Your task to perform on an android device: Open Chrome and go to settings Image 0: 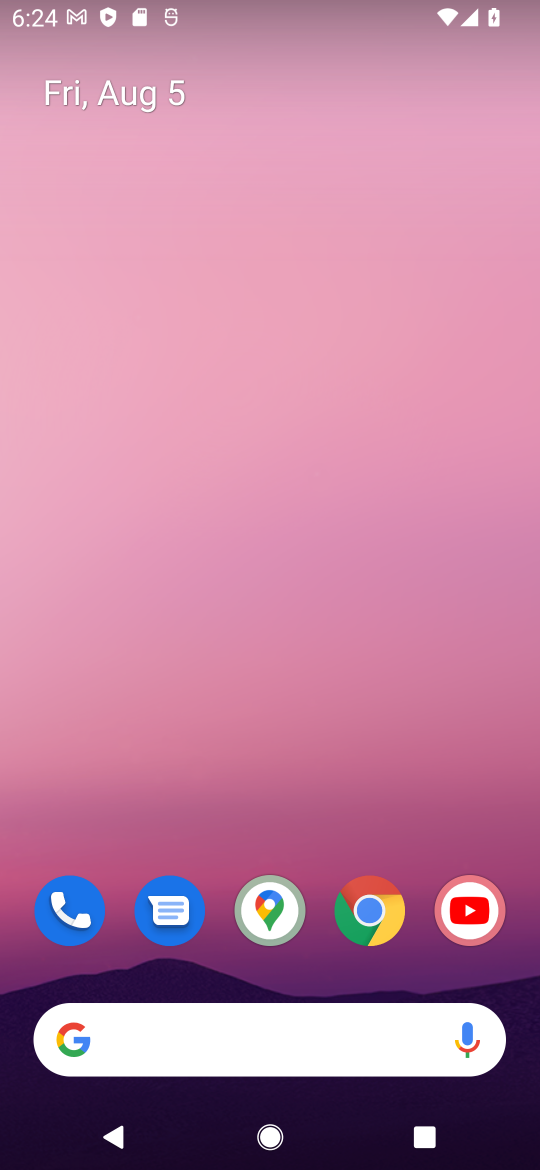
Step 0: drag from (307, 1053) to (324, 17)
Your task to perform on an android device: Open Chrome and go to settings Image 1: 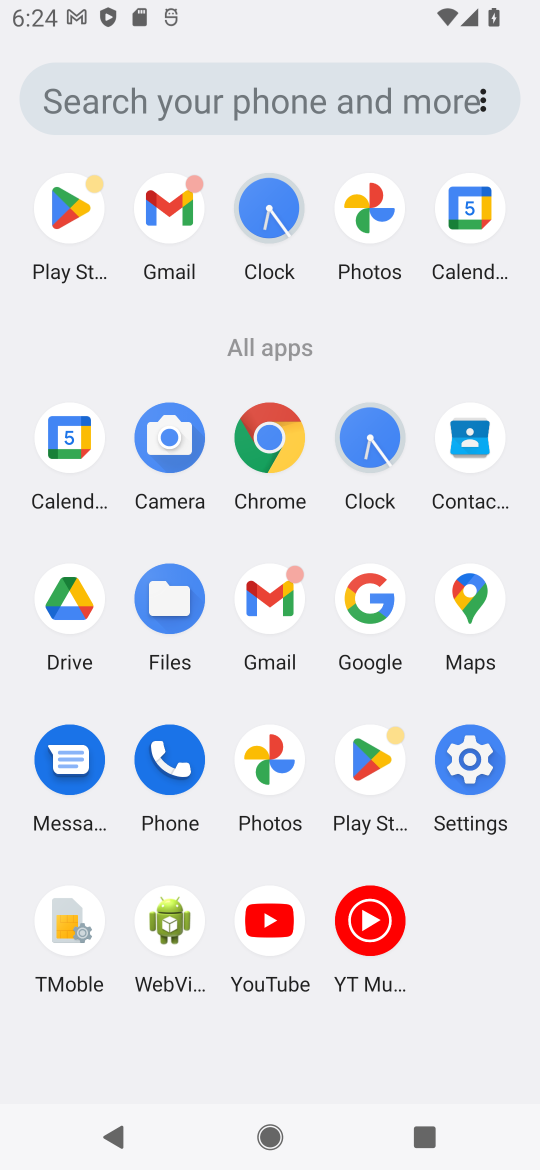
Step 1: click (268, 457)
Your task to perform on an android device: Open Chrome and go to settings Image 2: 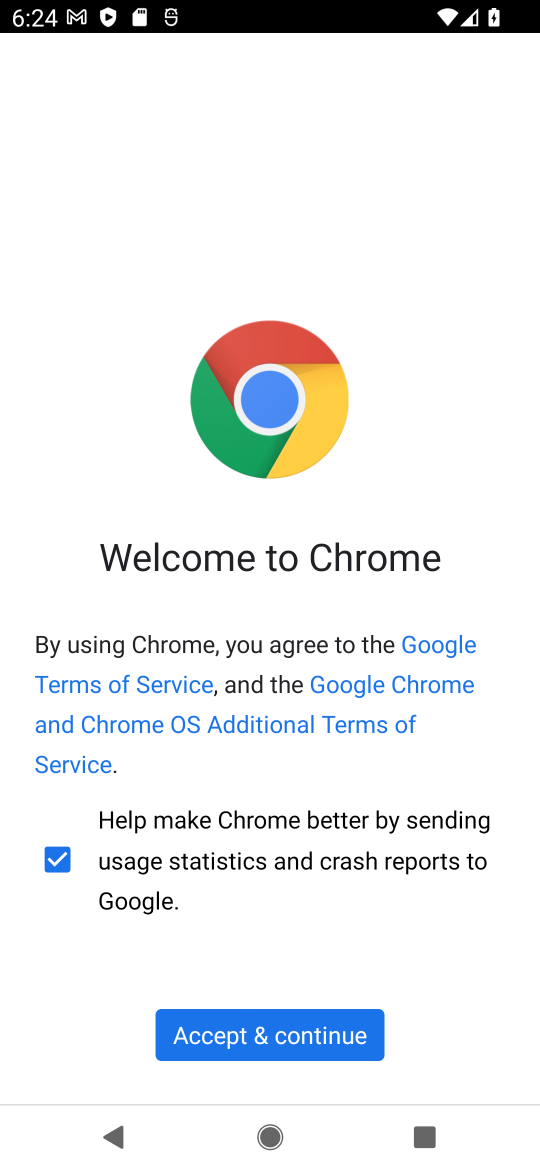
Step 2: click (247, 1017)
Your task to perform on an android device: Open Chrome and go to settings Image 3: 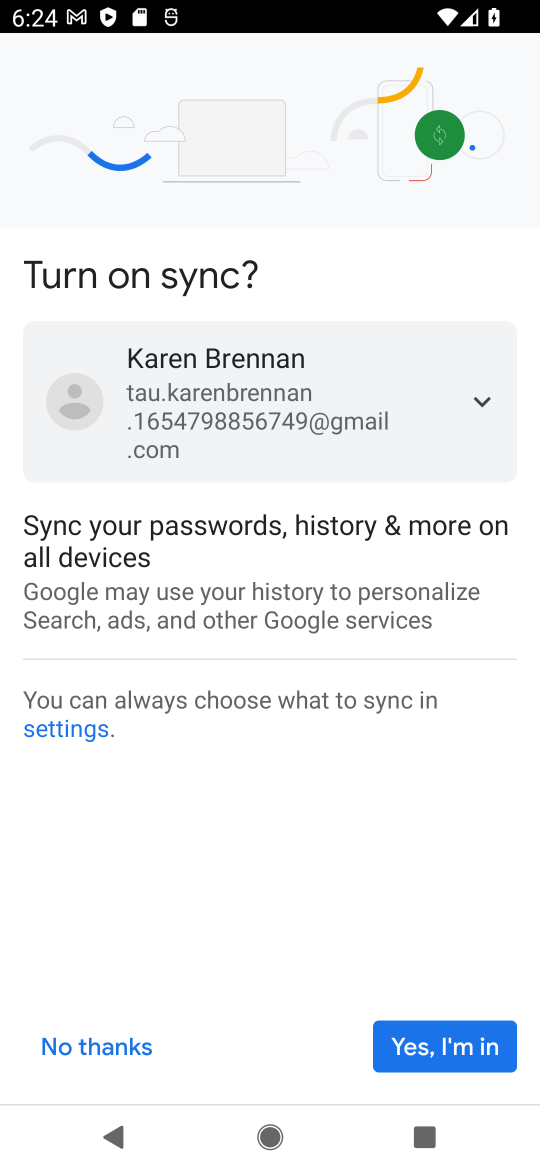
Step 3: click (62, 1044)
Your task to perform on an android device: Open Chrome and go to settings Image 4: 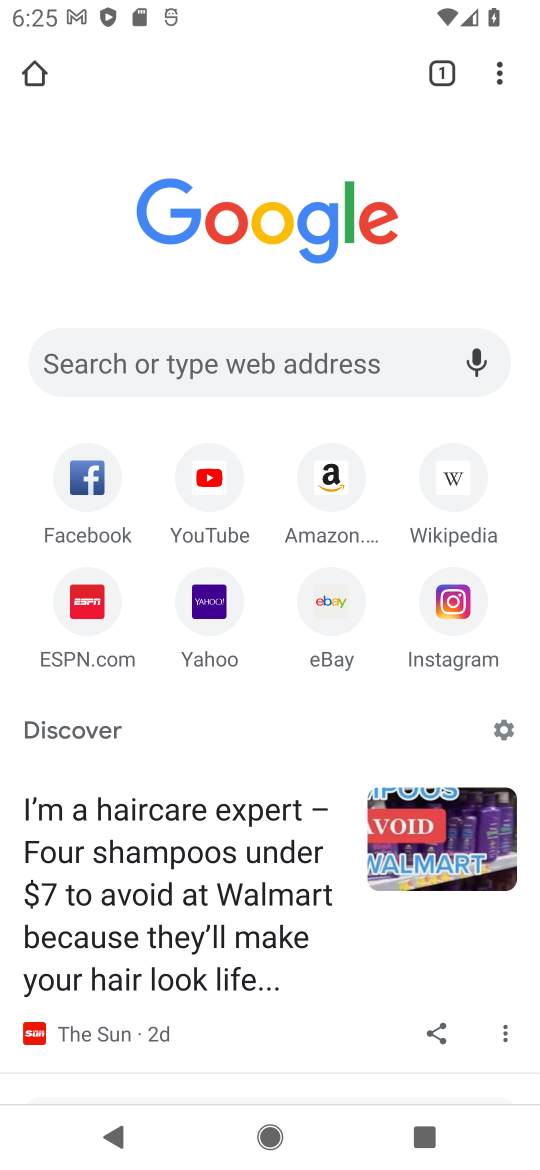
Step 4: click (496, 69)
Your task to perform on an android device: Open Chrome and go to settings Image 5: 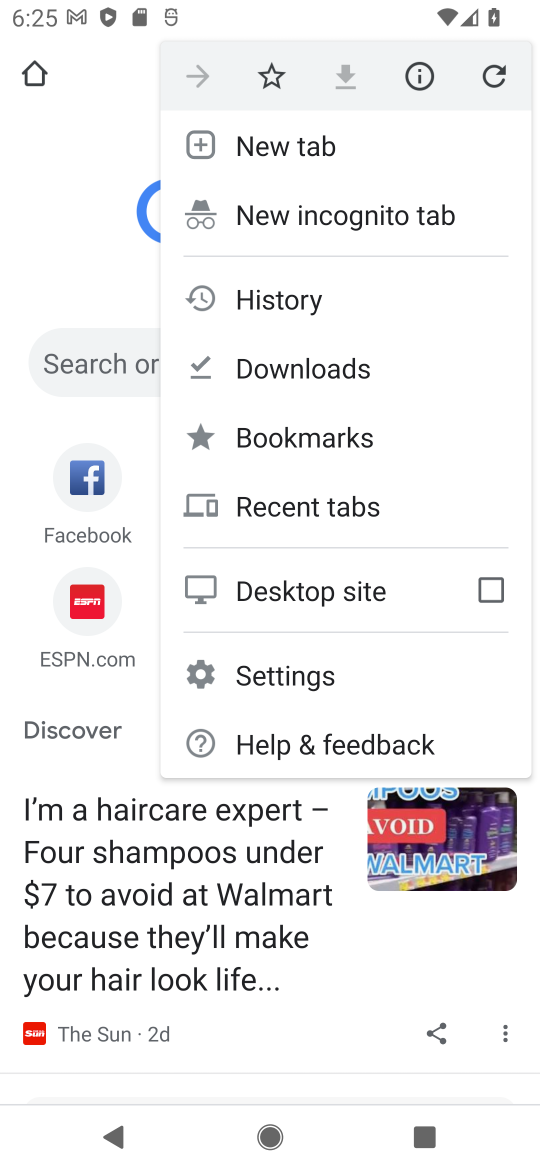
Step 5: click (294, 659)
Your task to perform on an android device: Open Chrome and go to settings Image 6: 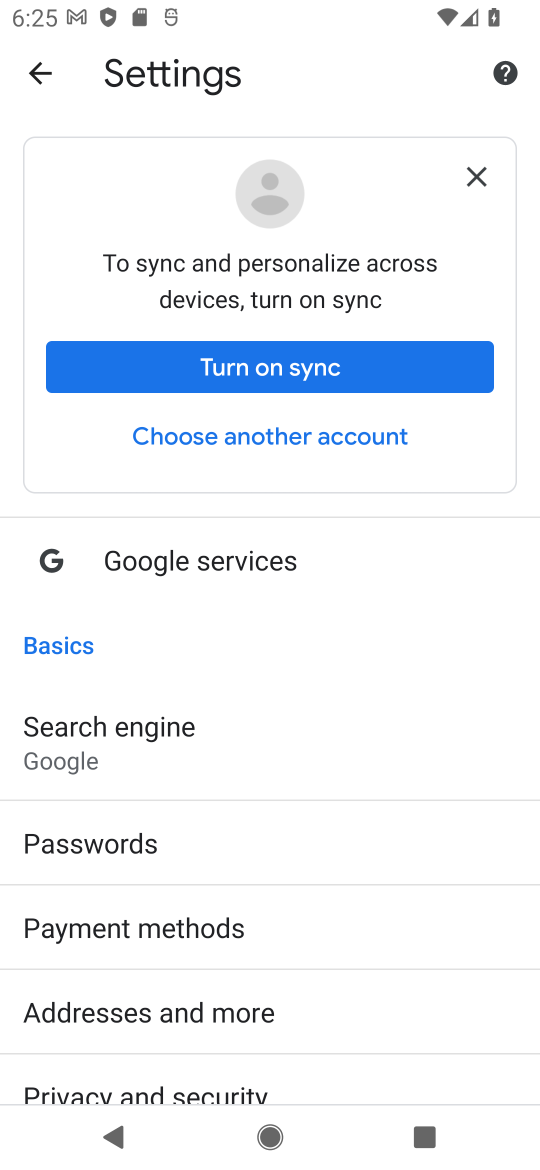
Step 6: task complete